Your task to perform on an android device: turn on the 24-hour format for clock Image 0: 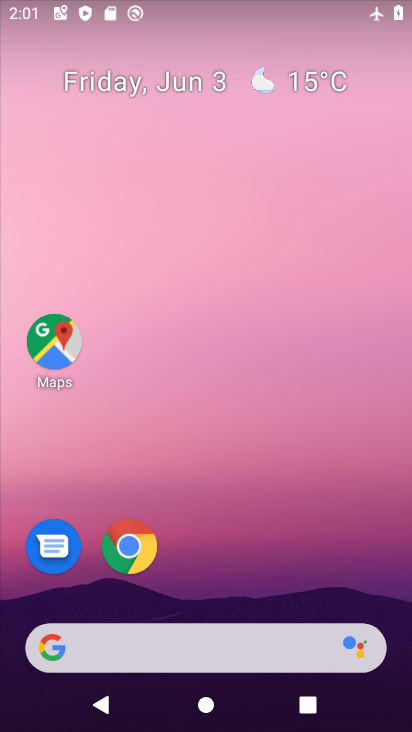
Step 0: drag from (299, 413) to (289, 10)
Your task to perform on an android device: turn on the 24-hour format for clock Image 1: 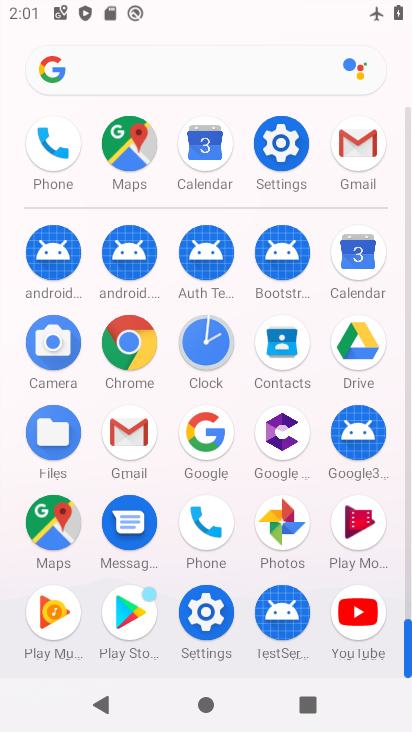
Step 1: click (202, 344)
Your task to perform on an android device: turn on the 24-hour format for clock Image 2: 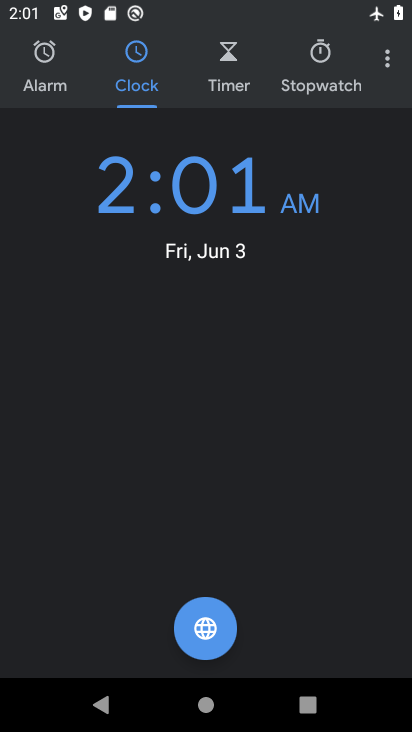
Step 2: click (393, 61)
Your task to perform on an android device: turn on the 24-hour format for clock Image 3: 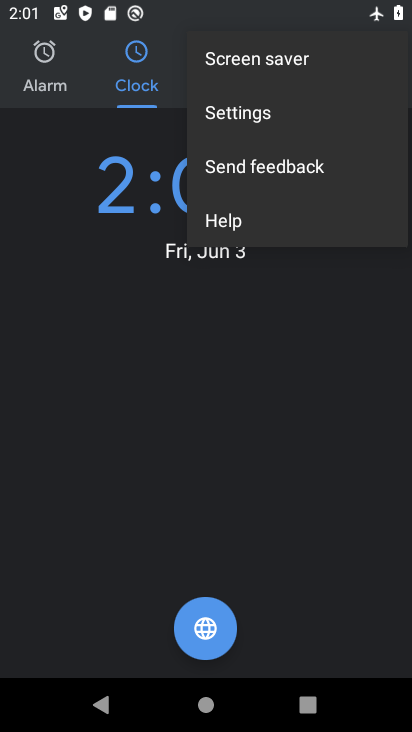
Step 3: click (265, 106)
Your task to perform on an android device: turn on the 24-hour format for clock Image 4: 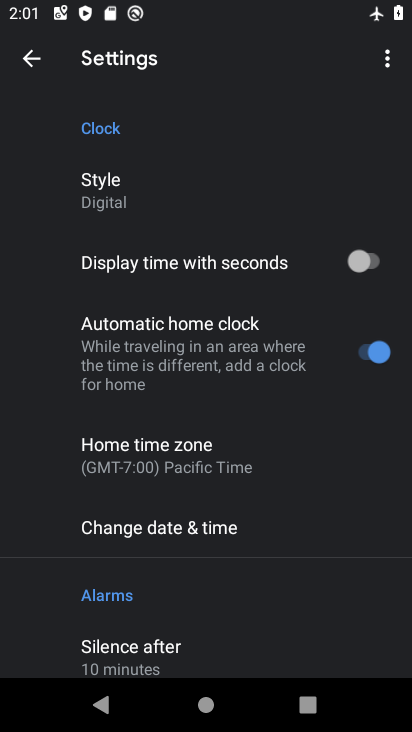
Step 4: click (118, 190)
Your task to perform on an android device: turn on the 24-hour format for clock Image 5: 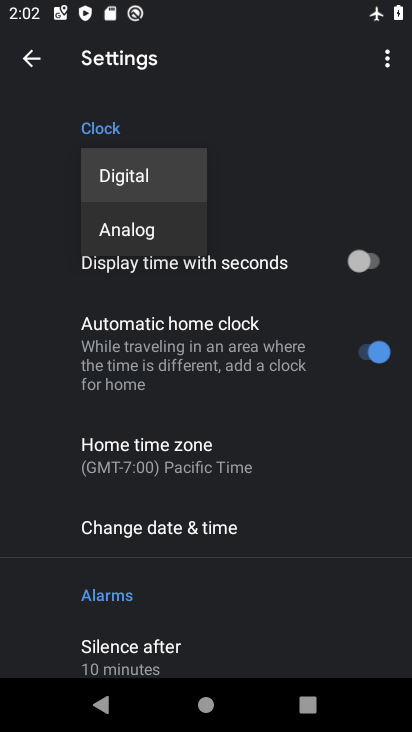
Step 5: click (221, 527)
Your task to perform on an android device: turn on the 24-hour format for clock Image 6: 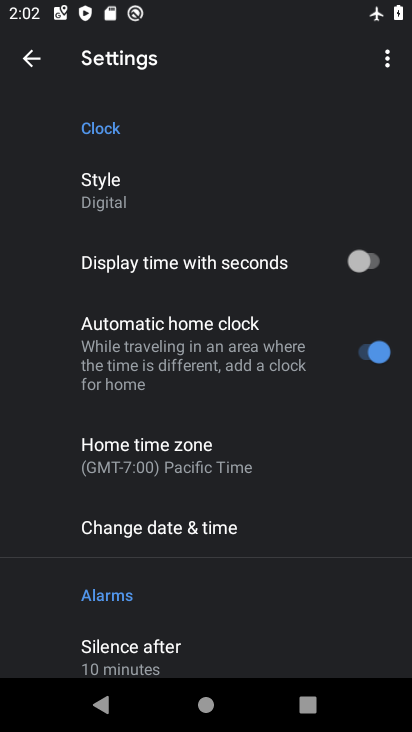
Step 6: click (221, 527)
Your task to perform on an android device: turn on the 24-hour format for clock Image 7: 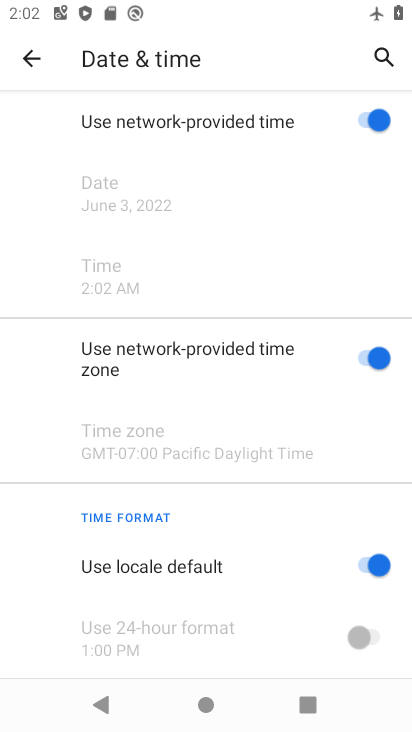
Step 7: task complete